Your task to perform on an android device: Do I have any events tomorrow? Image 0: 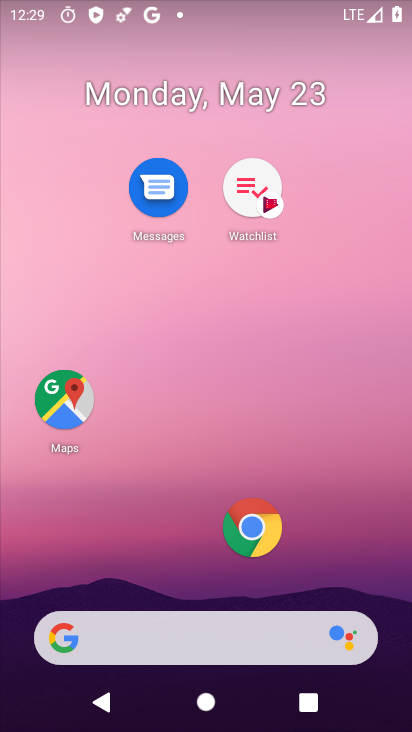
Step 0: drag from (284, 684) to (300, 195)
Your task to perform on an android device: Do I have any events tomorrow? Image 1: 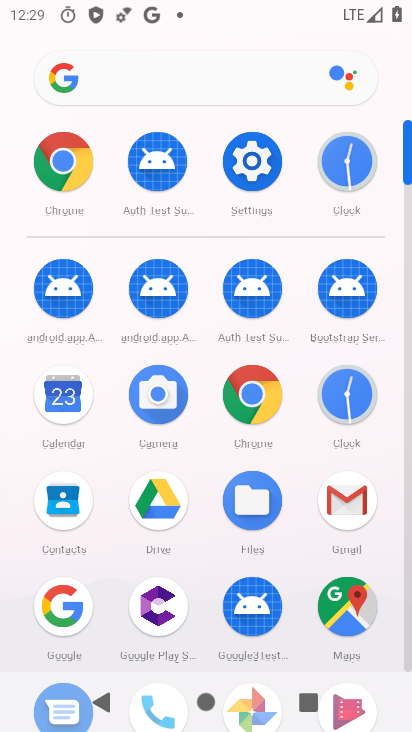
Step 1: click (380, 272)
Your task to perform on an android device: Do I have any events tomorrow? Image 2: 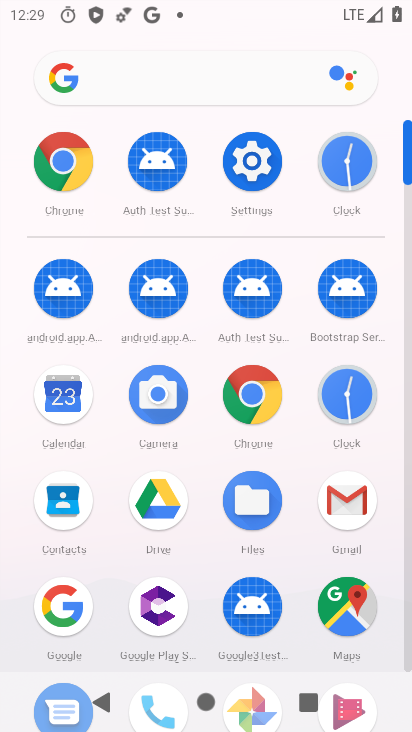
Step 2: drag from (263, 316) to (407, 577)
Your task to perform on an android device: Do I have any events tomorrow? Image 3: 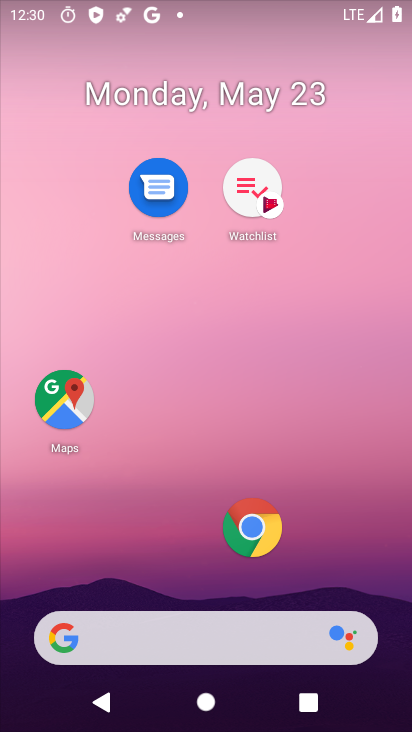
Step 3: drag from (264, 646) to (198, 139)
Your task to perform on an android device: Do I have any events tomorrow? Image 4: 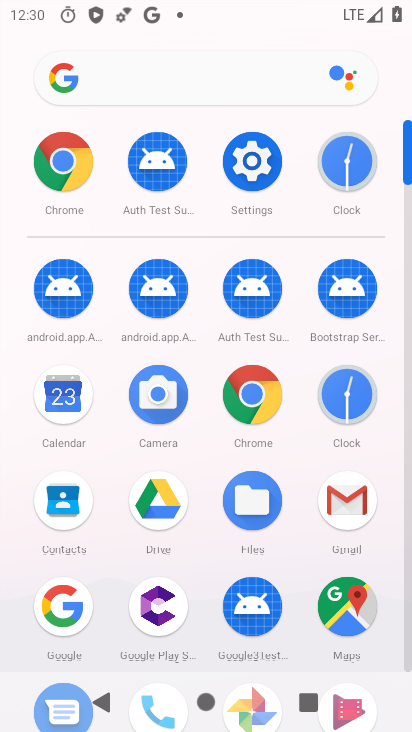
Step 4: click (64, 405)
Your task to perform on an android device: Do I have any events tomorrow? Image 5: 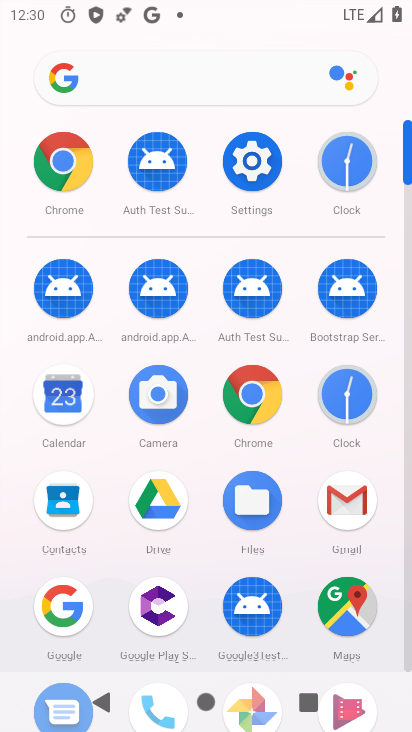
Step 5: click (64, 404)
Your task to perform on an android device: Do I have any events tomorrow? Image 6: 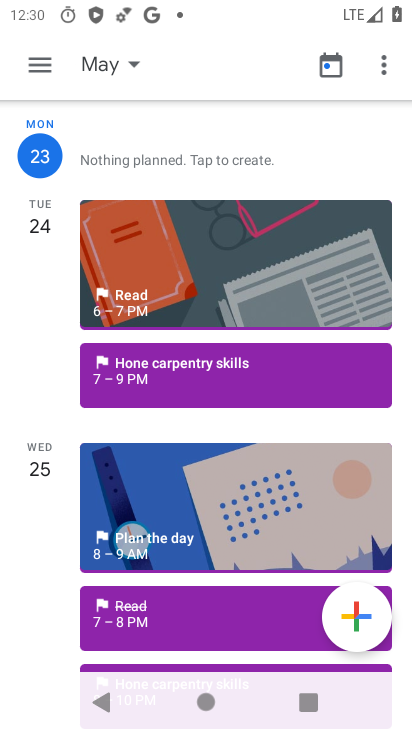
Step 6: click (141, 277)
Your task to perform on an android device: Do I have any events tomorrow? Image 7: 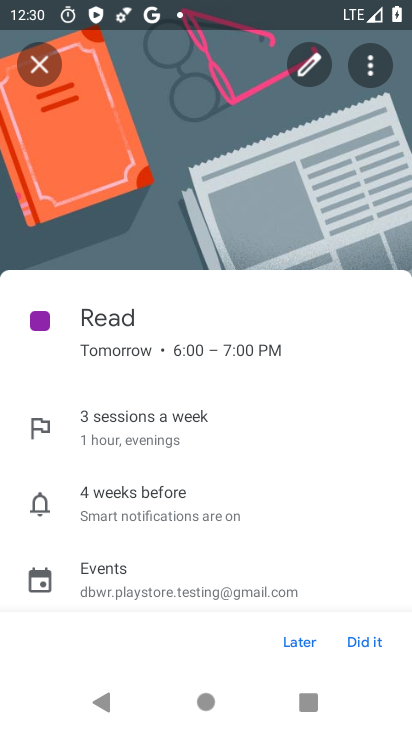
Step 7: task complete